Your task to perform on an android device: Go to wifi settings Image 0: 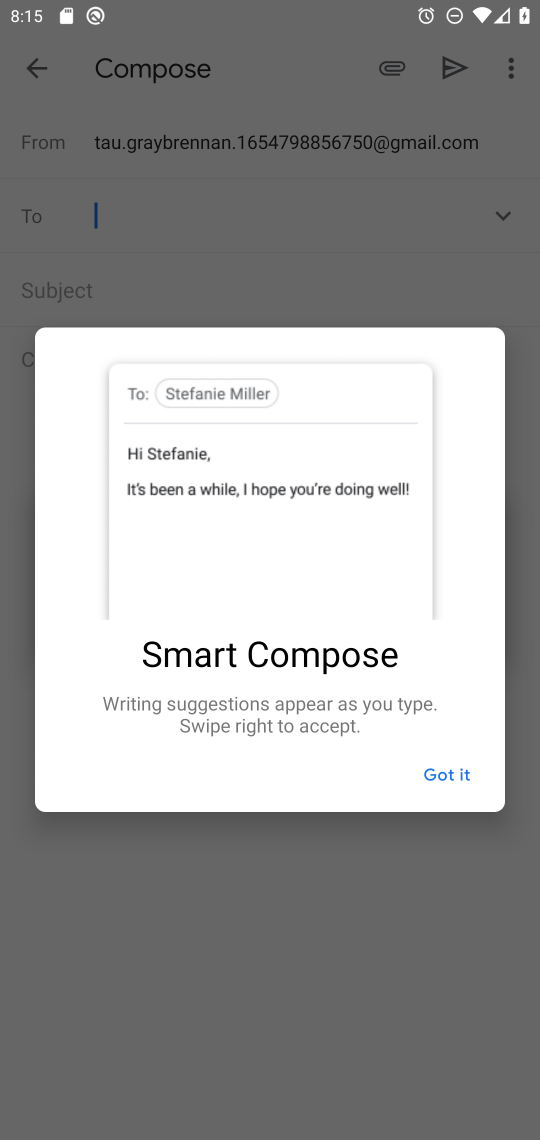
Step 0: drag from (304, 5) to (302, 851)
Your task to perform on an android device: Go to wifi settings Image 1: 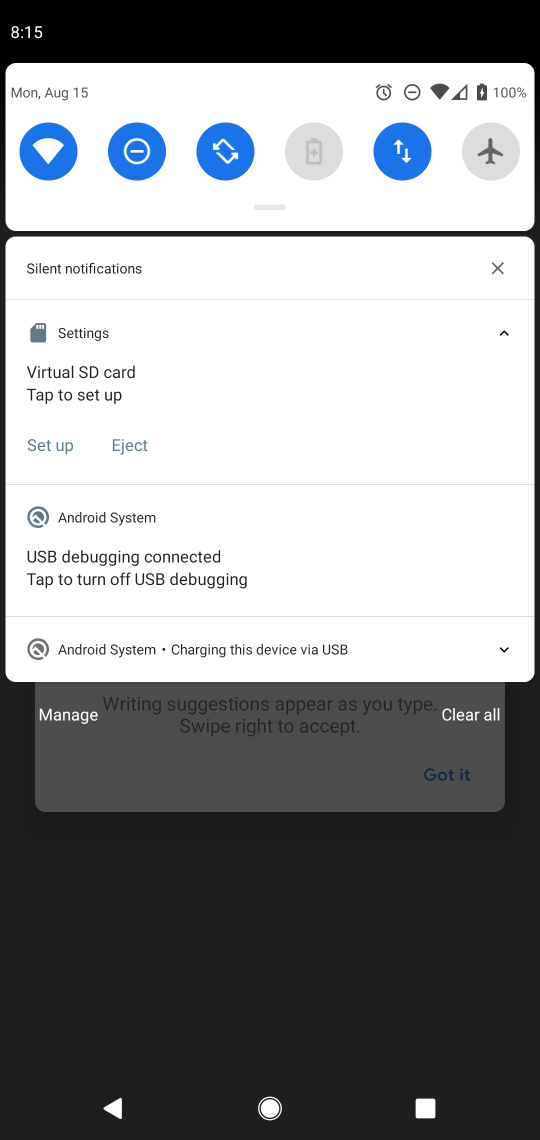
Step 1: click (50, 147)
Your task to perform on an android device: Go to wifi settings Image 2: 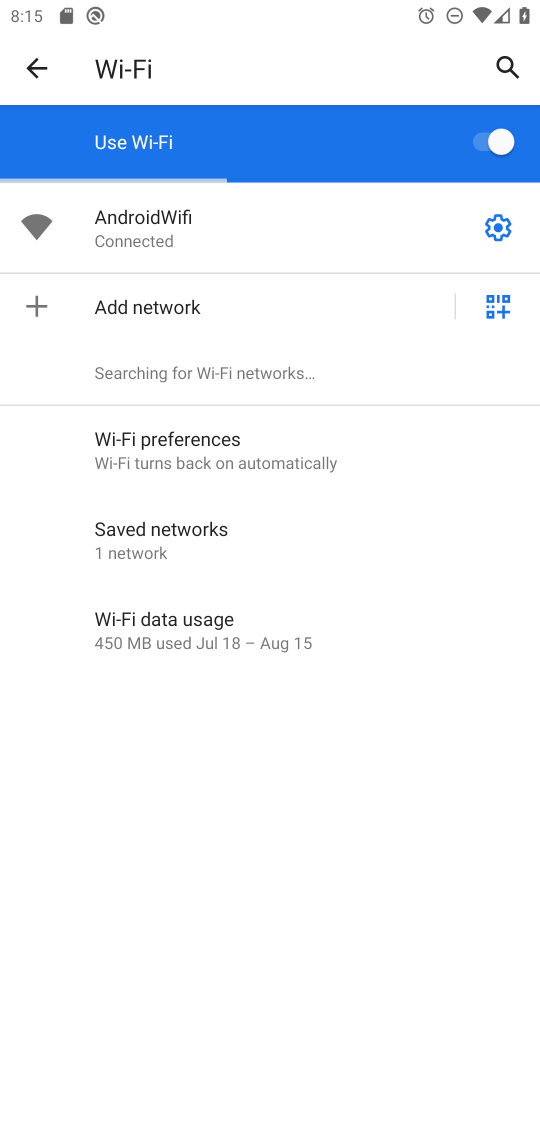
Step 2: task complete